Your task to perform on an android device: change the clock display to analog Image 0: 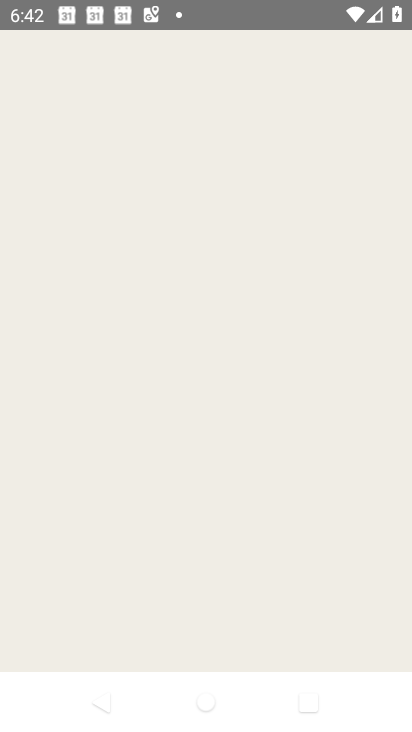
Step 0: press home button
Your task to perform on an android device: change the clock display to analog Image 1: 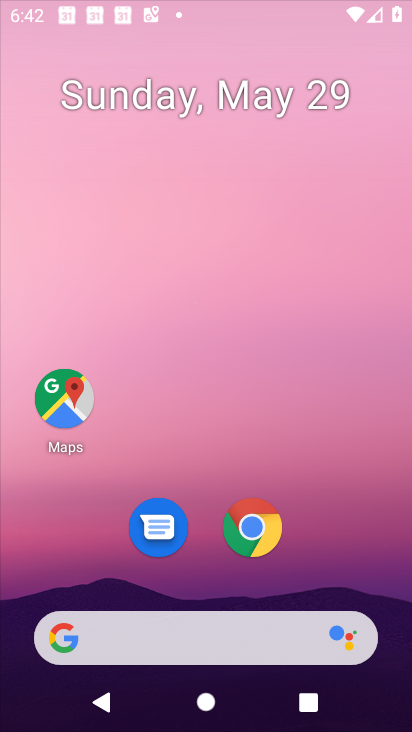
Step 1: drag from (375, 599) to (278, 30)
Your task to perform on an android device: change the clock display to analog Image 2: 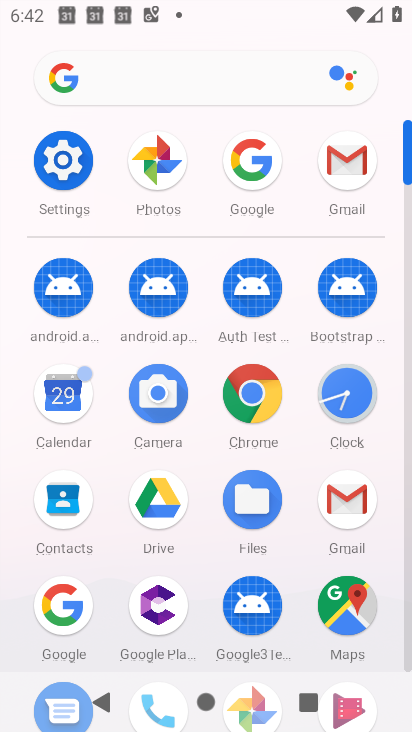
Step 2: click (343, 391)
Your task to perform on an android device: change the clock display to analog Image 3: 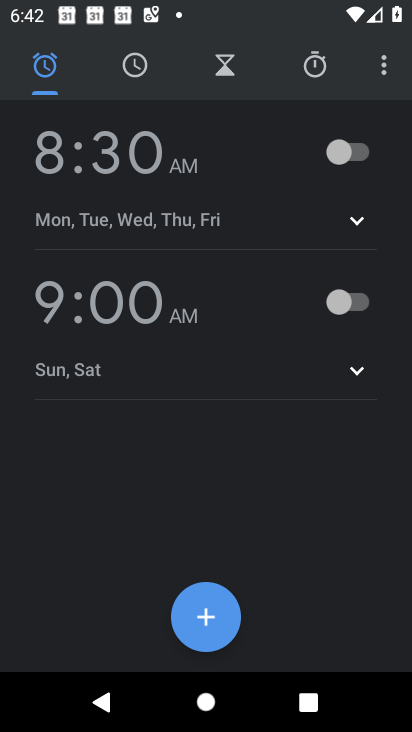
Step 3: click (389, 77)
Your task to perform on an android device: change the clock display to analog Image 4: 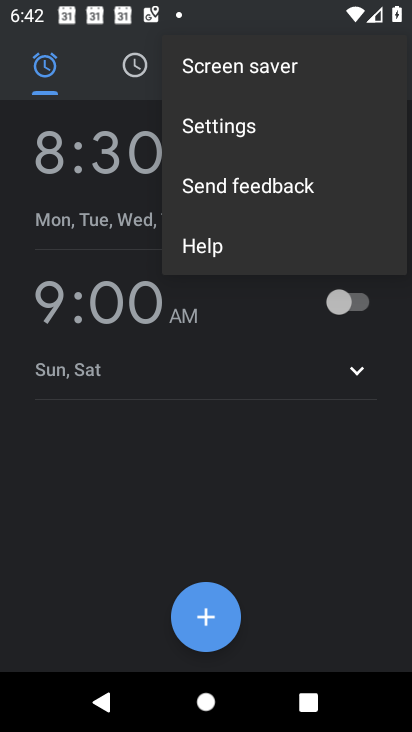
Step 4: click (287, 122)
Your task to perform on an android device: change the clock display to analog Image 5: 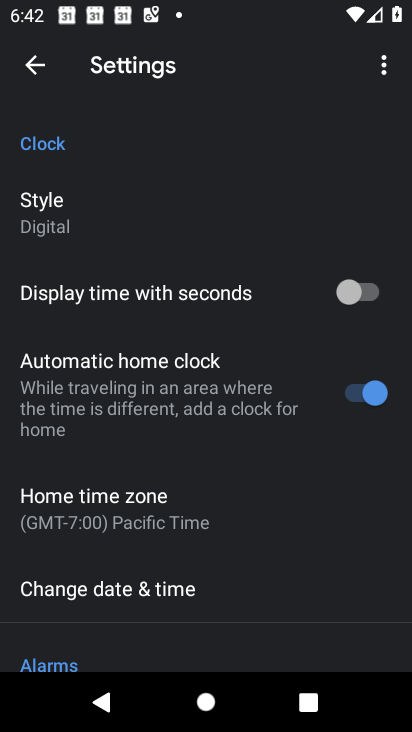
Step 5: click (88, 192)
Your task to perform on an android device: change the clock display to analog Image 6: 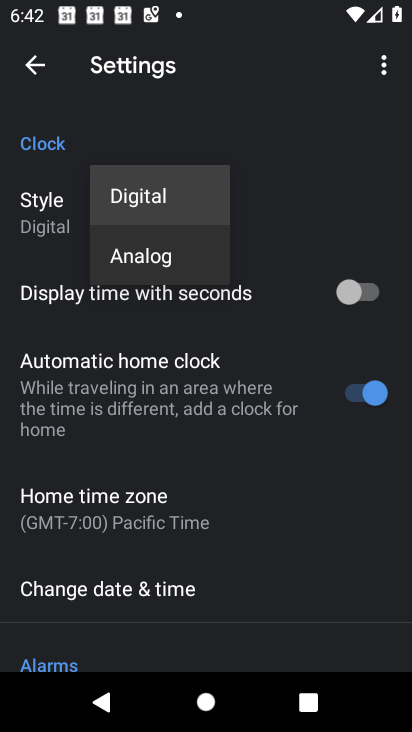
Step 6: click (145, 252)
Your task to perform on an android device: change the clock display to analog Image 7: 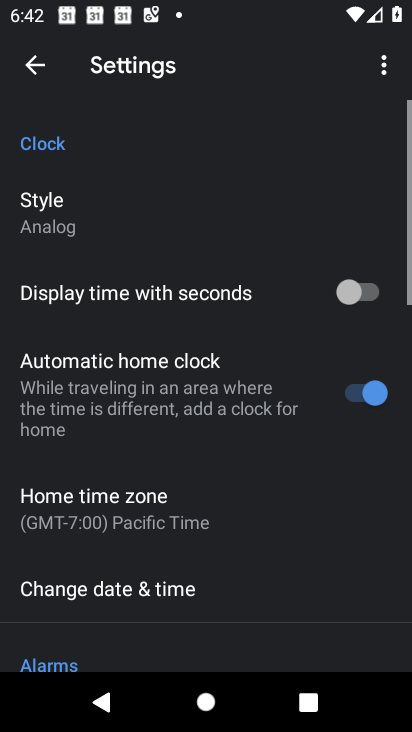
Step 7: task complete